Your task to perform on an android device: Open internet settings Image 0: 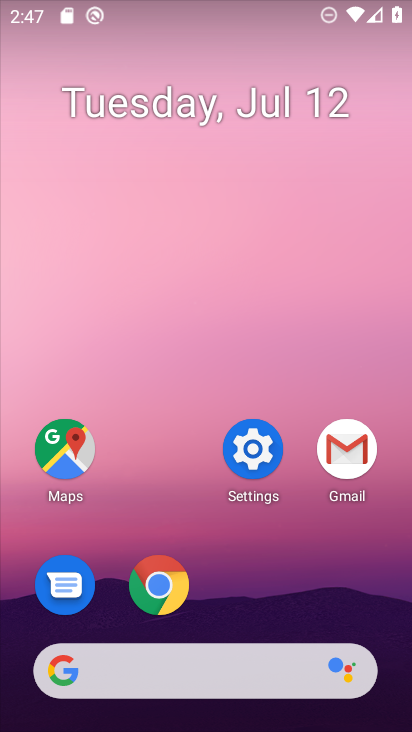
Step 0: click (254, 453)
Your task to perform on an android device: Open internet settings Image 1: 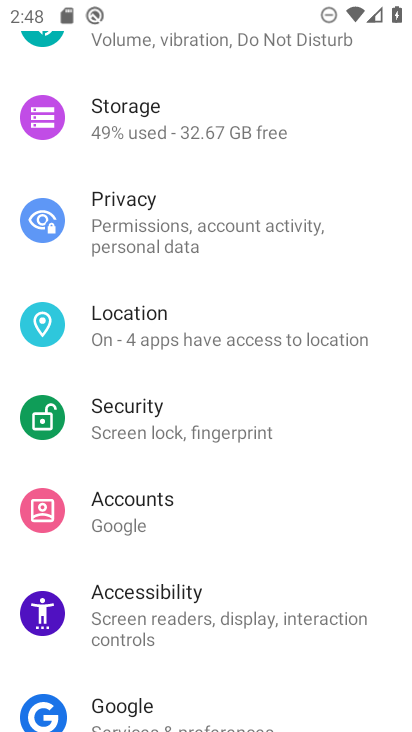
Step 1: drag from (217, 87) to (248, 660)
Your task to perform on an android device: Open internet settings Image 2: 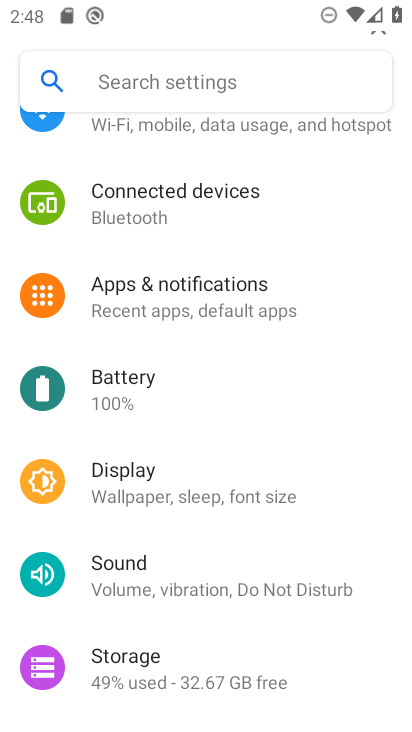
Step 2: drag from (186, 172) to (206, 608)
Your task to perform on an android device: Open internet settings Image 3: 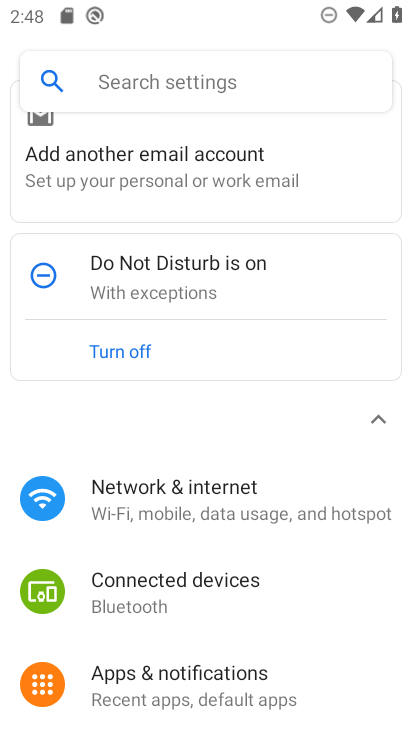
Step 3: click (143, 500)
Your task to perform on an android device: Open internet settings Image 4: 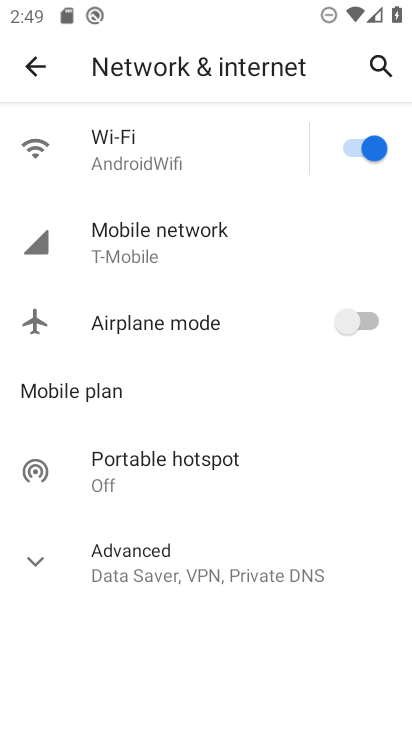
Step 4: click (42, 552)
Your task to perform on an android device: Open internet settings Image 5: 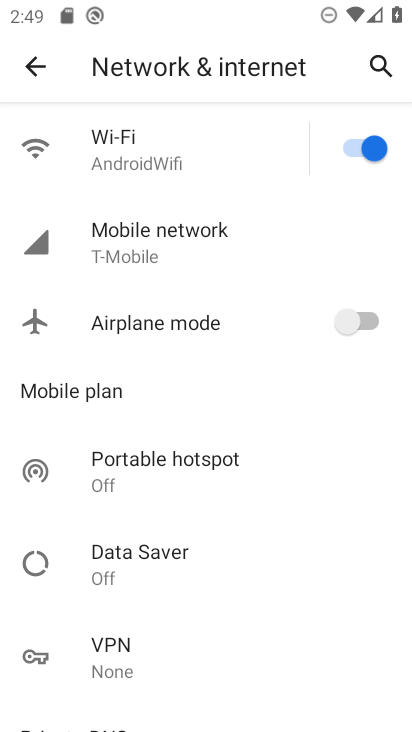
Step 5: task complete